Your task to perform on an android device: When is my next meeting? Image 0: 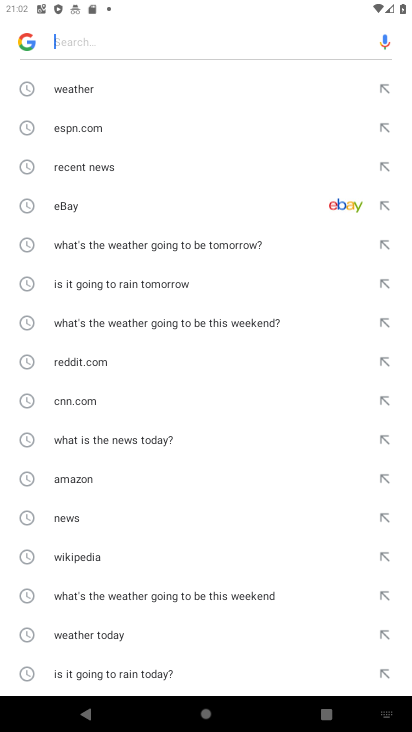
Step 0: press home button
Your task to perform on an android device: When is my next meeting? Image 1: 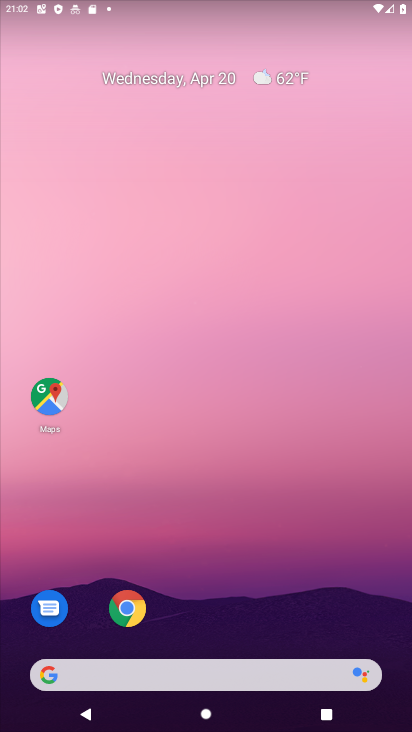
Step 1: drag from (276, 634) to (237, 59)
Your task to perform on an android device: When is my next meeting? Image 2: 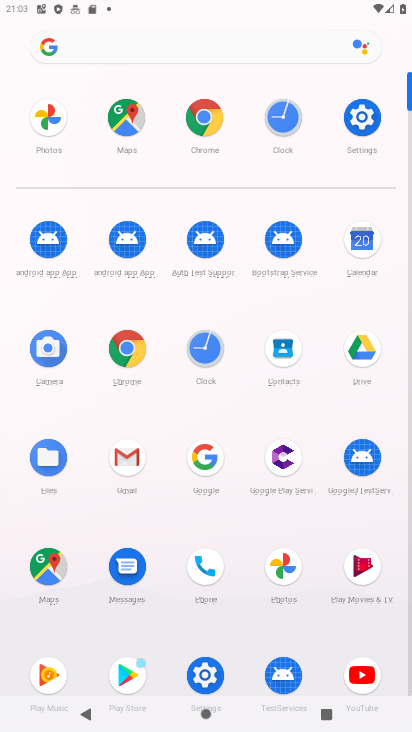
Step 2: click (349, 247)
Your task to perform on an android device: When is my next meeting? Image 3: 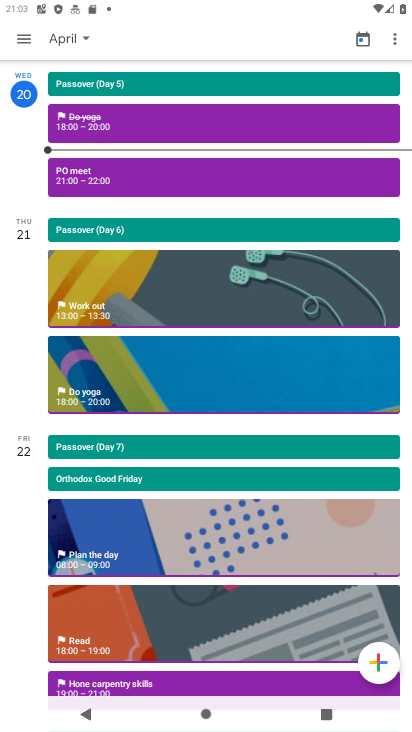
Step 3: click (78, 41)
Your task to perform on an android device: When is my next meeting? Image 4: 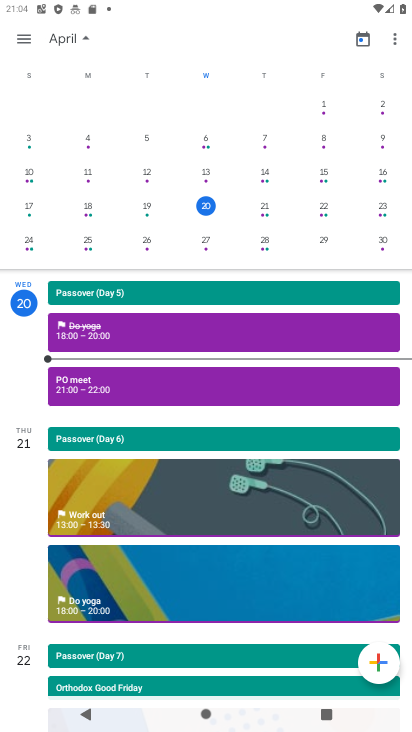
Step 4: click (24, 39)
Your task to perform on an android device: When is my next meeting? Image 5: 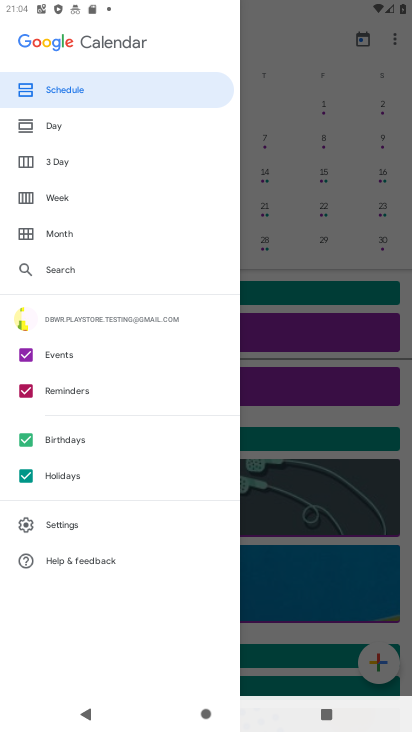
Step 5: click (82, 85)
Your task to perform on an android device: When is my next meeting? Image 6: 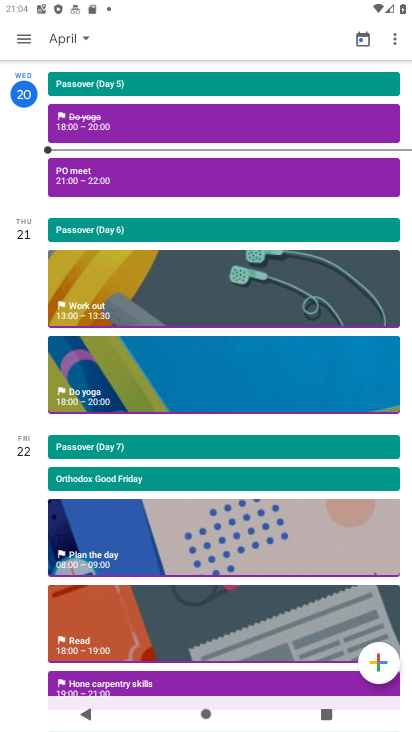
Step 6: task complete